Your task to perform on an android device: Search for Mexican restaurants on Maps Image 0: 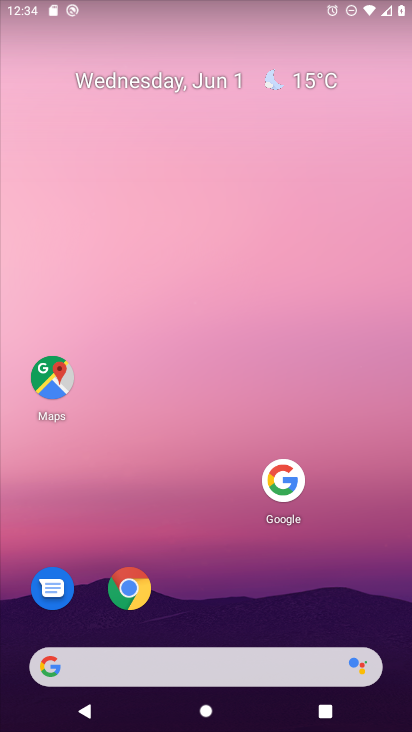
Step 0: press home button
Your task to perform on an android device: Search for Mexican restaurants on Maps Image 1: 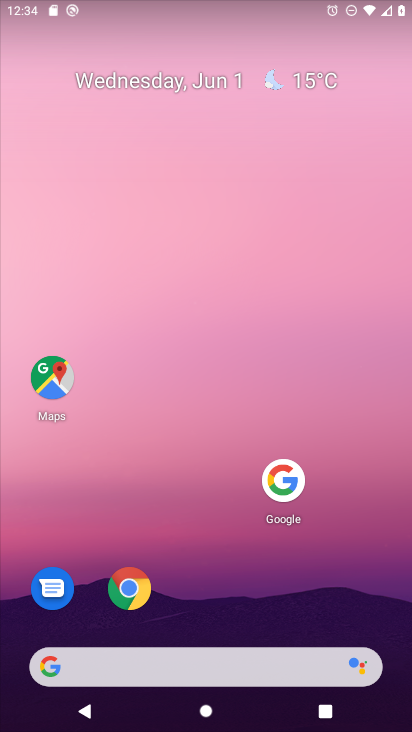
Step 1: click (46, 381)
Your task to perform on an android device: Search for Mexican restaurants on Maps Image 2: 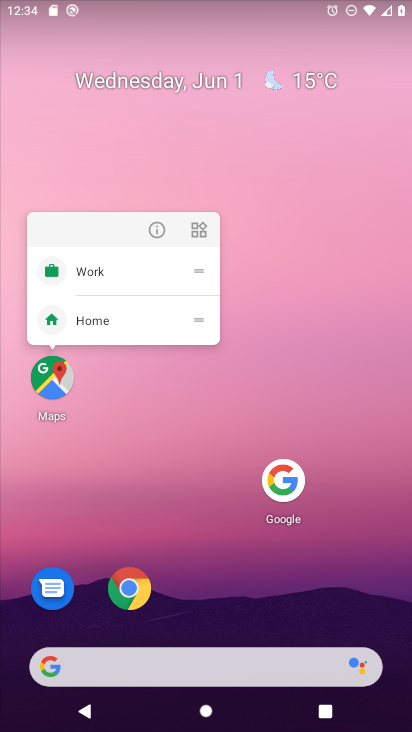
Step 2: click (45, 390)
Your task to perform on an android device: Search for Mexican restaurants on Maps Image 3: 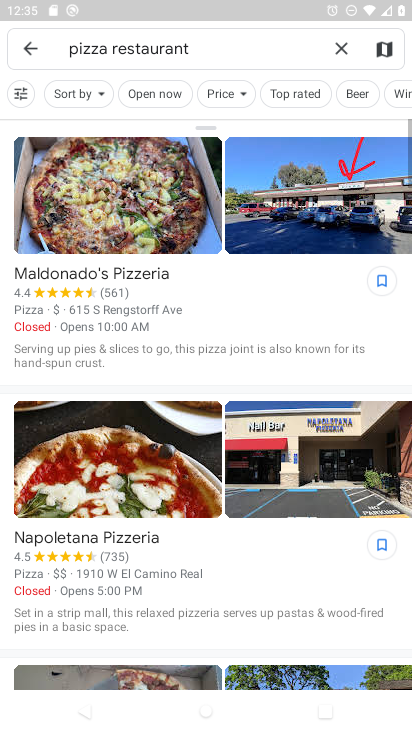
Step 3: click (338, 48)
Your task to perform on an android device: Search for Mexican restaurants on Maps Image 4: 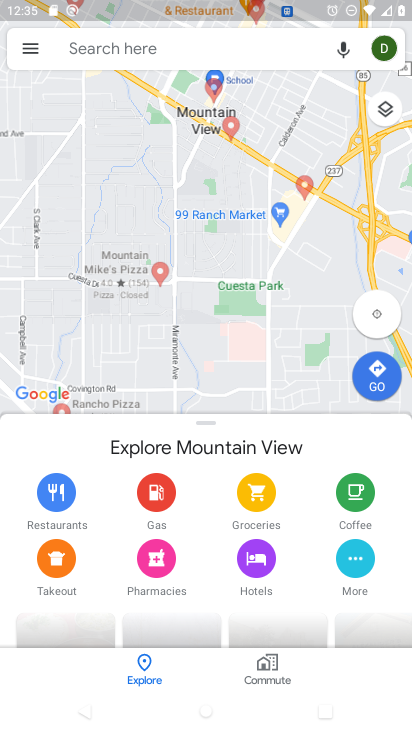
Step 4: click (209, 47)
Your task to perform on an android device: Search for Mexican restaurants on Maps Image 5: 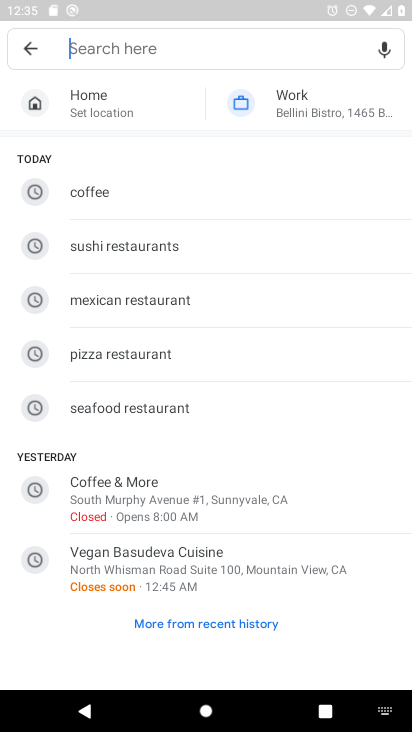
Step 5: click (130, 301)
Your task to perform on an android device: Search for Mexican restaurants on Maps Image 6: 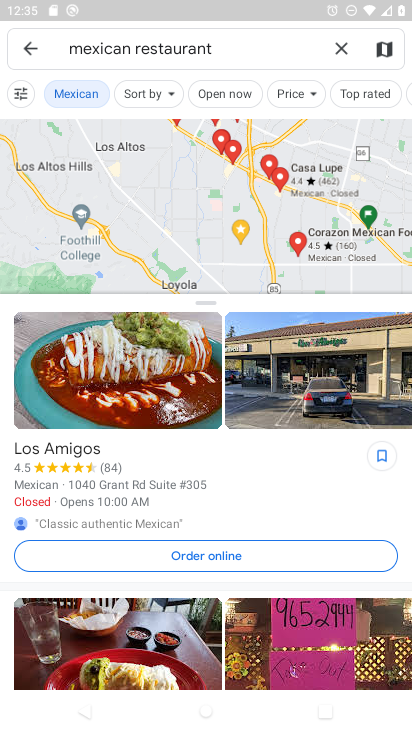
Step 6: task complete